Your task to perform on an android device: turn vacation reply on in the gmail app Image 0: 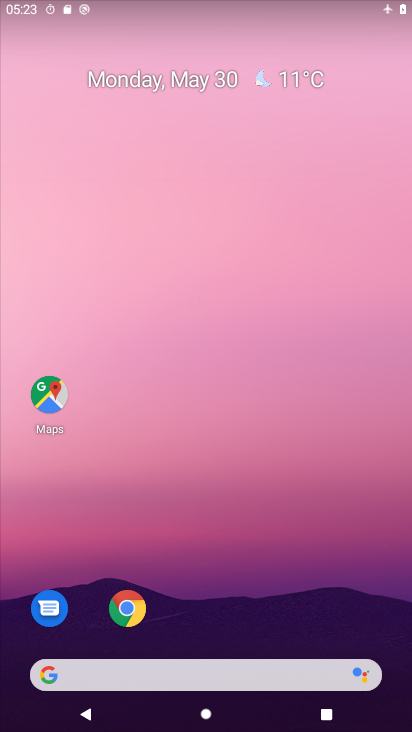
Step 0: drag from (245, 172) to (176, 16)
Your task to perform on an android device: turn vacation reply on in the gmail app Image 1: 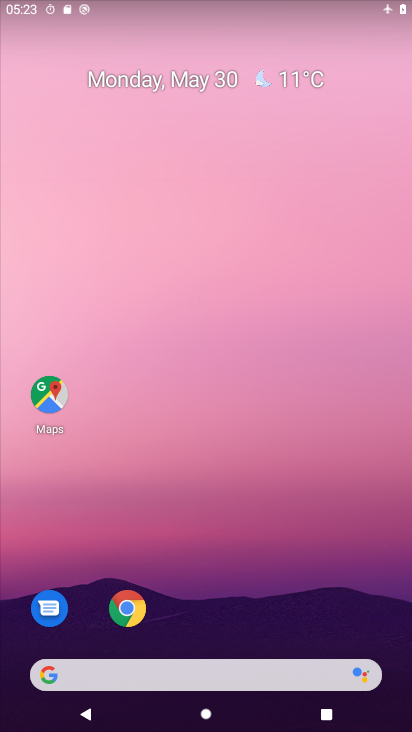
Step 1: drag from (230, 530) to (94, 2)
Your task to perform on an android device: turn vacation reply on in the gmail app Image 2: 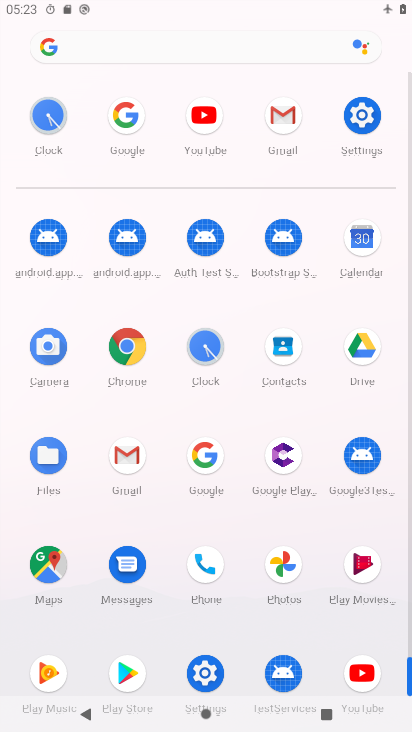
Step 2: click (128, 456)
Your task to perform on an android device: turn vacation reply on in the gmail app Image 3: 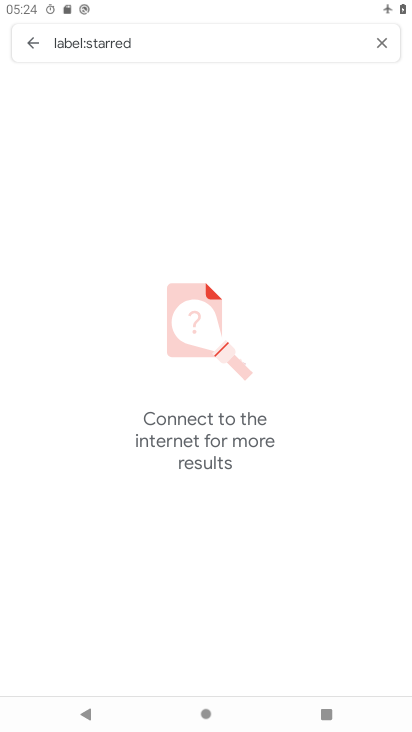
Step 3: click (381, 41)
Your task to perform on an android device: turn vacation reply on in the gmail app Image 4: 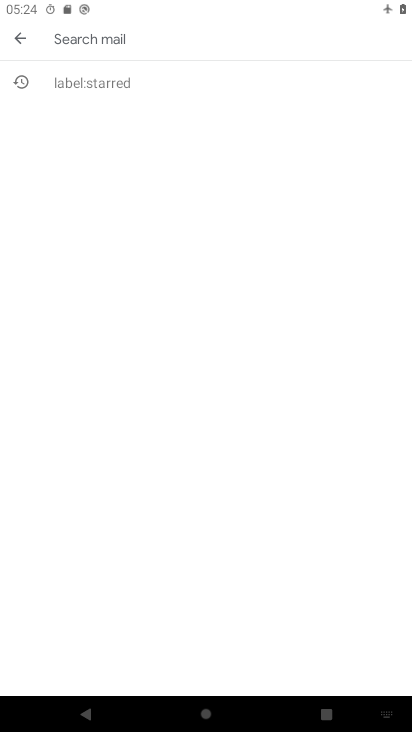
Step 4: click (21, 36)
Your task to perform on an android device: turn vacation reply on in the gmail app Image 5: 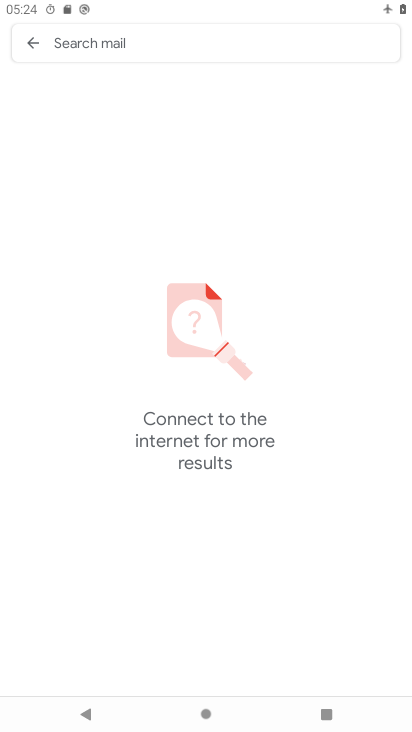
Step 5: click (37, 33)
Your task to perform on an android device: turn vacation reply on in the gmail app Image 6: 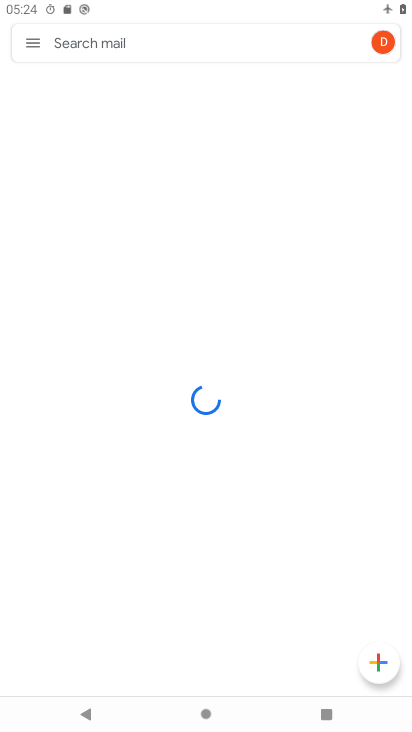
Step 6: click (38, 43)
Your task to perform on an android device: turn vacation reply on in the gmail app Image 7: 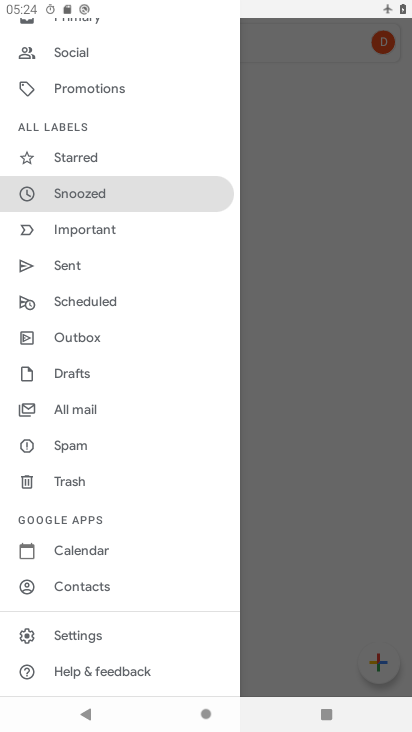
Step 7: click (97, 639)
Your task to perform on an android device: turn vacation reply on in the gmail app Image 8: 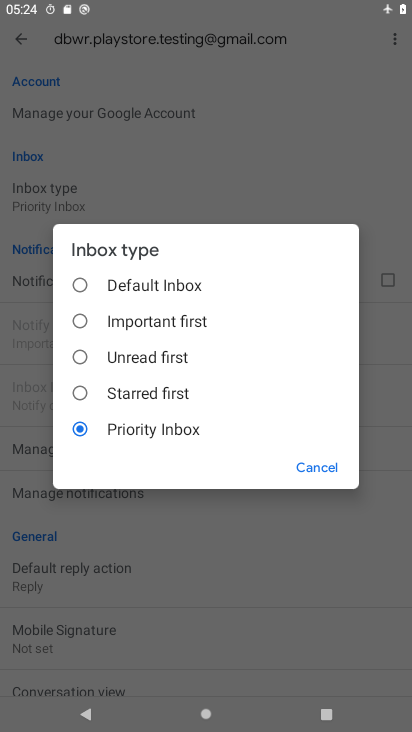
Step 8: click (318, 455)
Your task to perform on an android device: turn vacation reply on in the gmail app Image 9: 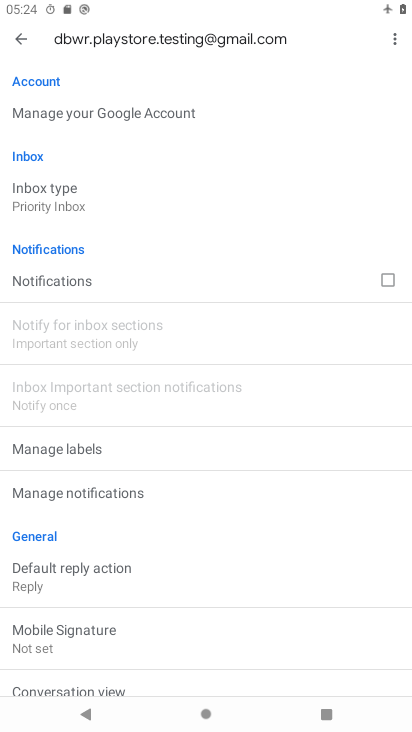
Step 9: drag from (166, 588) to (188, 293)
Your task to perform on an android device: turn vacation reply on in the gmail app Image 10: 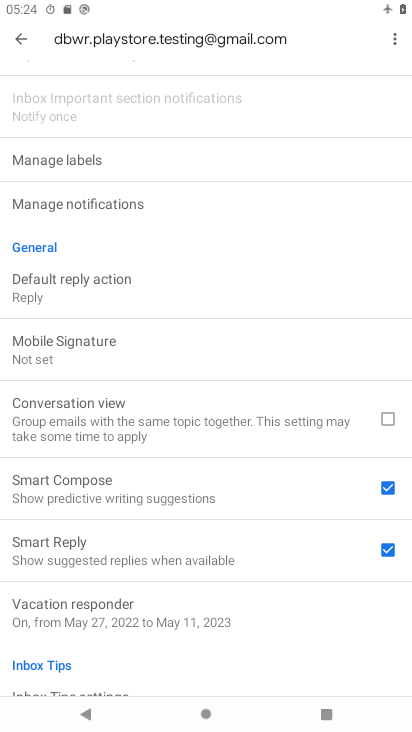
Step 10: click (142, 604)
Your task to perform on an android device: turn vacation reply on in the gmail app Image 11: 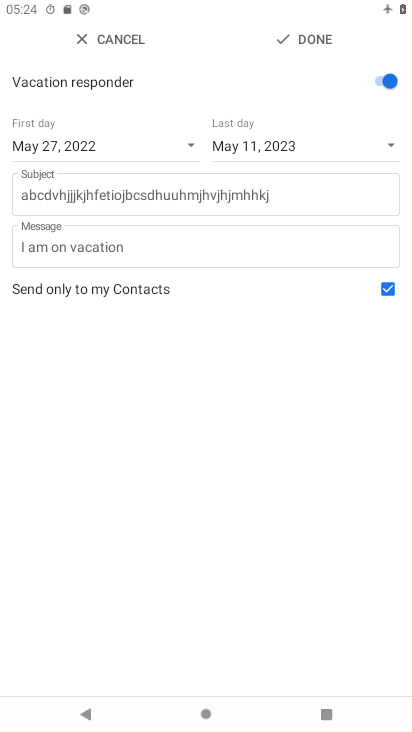
Step 11: click (315, 39)
Your task to perform on an android device: turn vacation reply on in the gmail app Image 12: 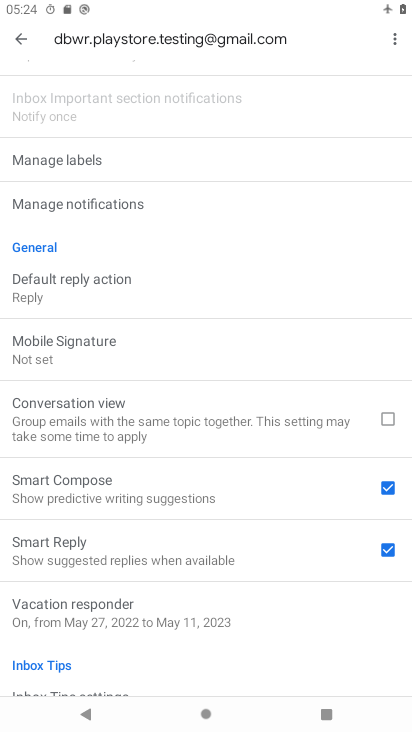
Step 12: task complete